Your task to perform on an android device: turn on showing notifications on the lock screen Image 0: 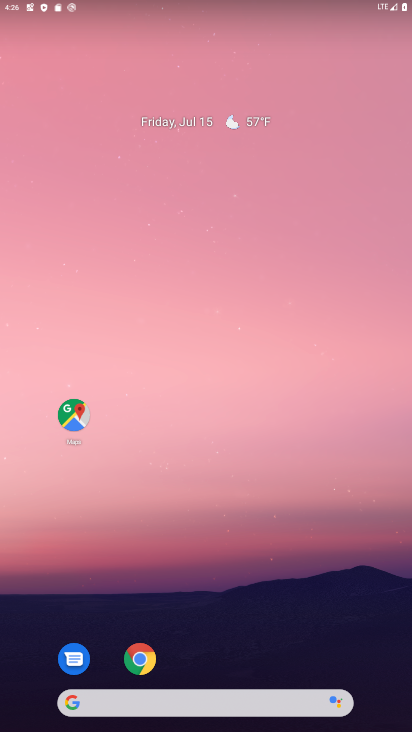
Step 0: drag from (347, 652) to (193, 0)
Your task to perform on an android device: turn on showing notifications on the lock screen Image 1: 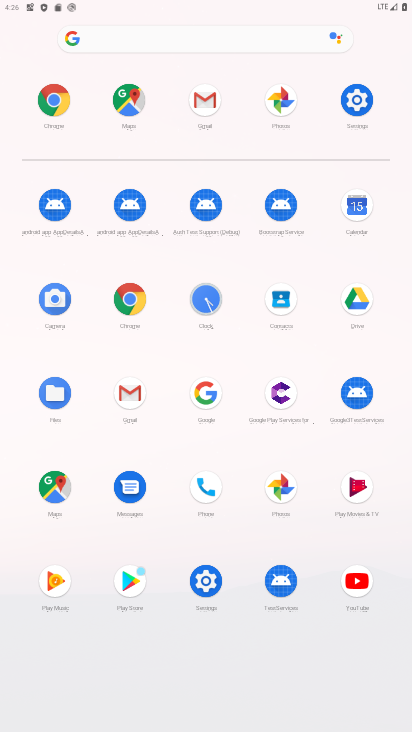
Step 1: click (367, 113)
Your task to perform on an android device: turn on showing notifications on the lock screen Image 2: 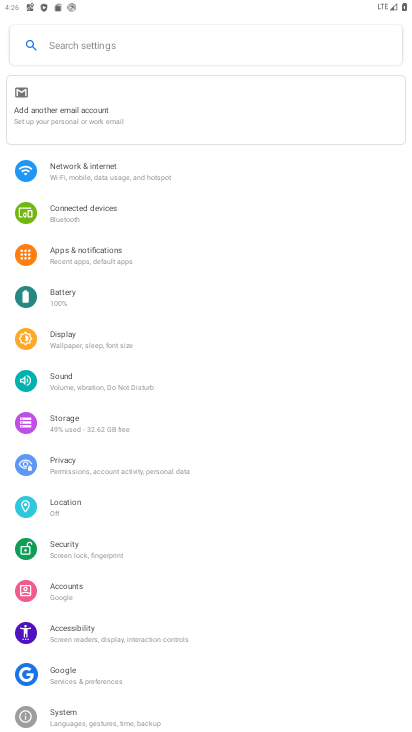
Step 2: click (142, 265)
Your task to perform on an android device: turn on showing notifications on the lock screen Image 3: 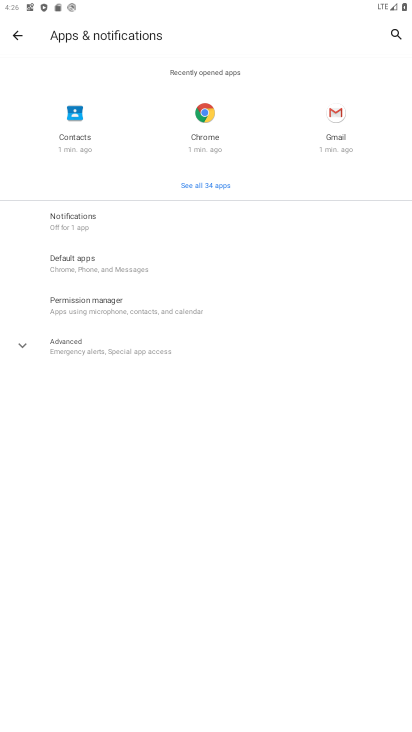
Step 3: click (144, 223)
Your task to perform on an android device: turn on showing notifications on the lock screen Image 4: 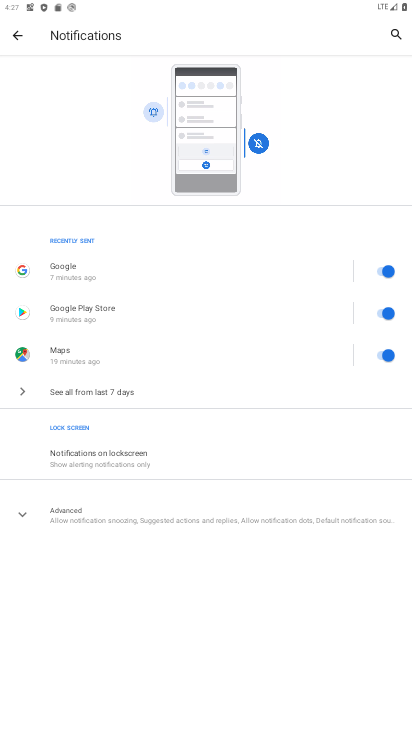
Step 4: click (251, 460)
Your task to perform on an android device: turn on showing notifications on the lock screen Image 5: 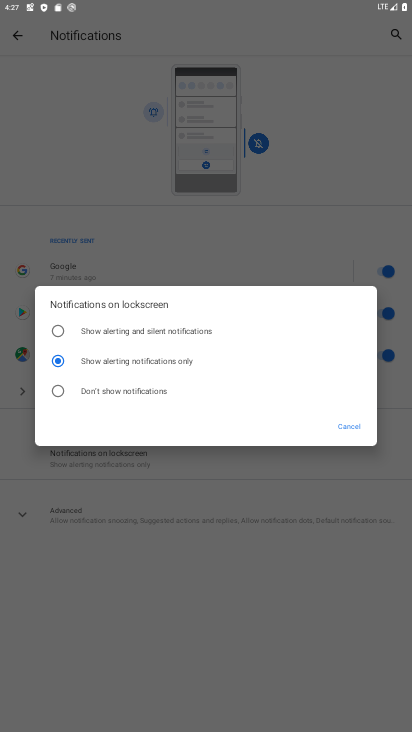
Step 5: task complete